Your task to perform on an android device: What is the capital of China? Image 0: 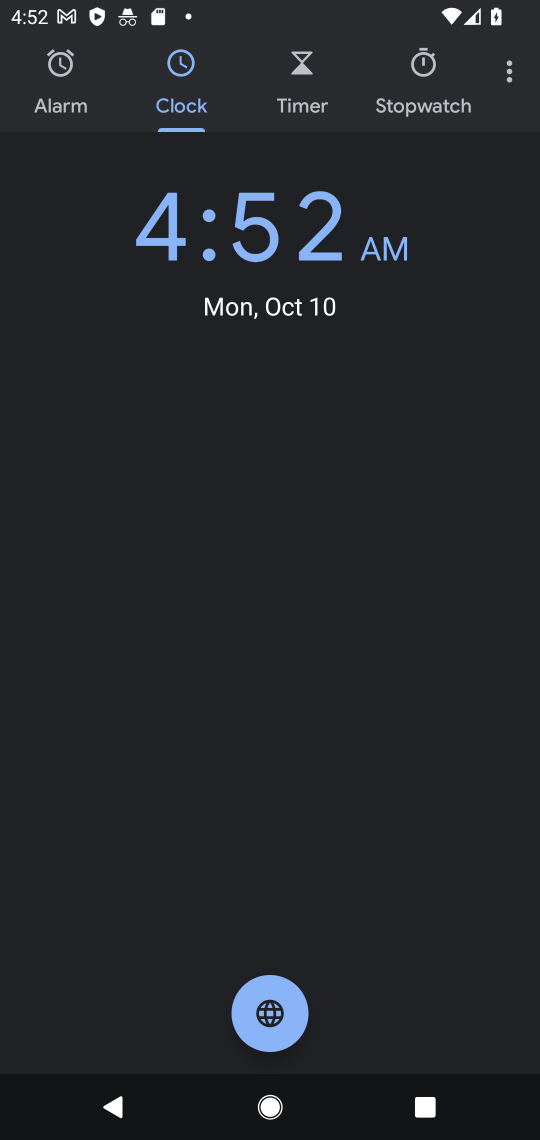
Step 0: press home button
Your task to perform on an android device: What is the capital of China? Image 1: 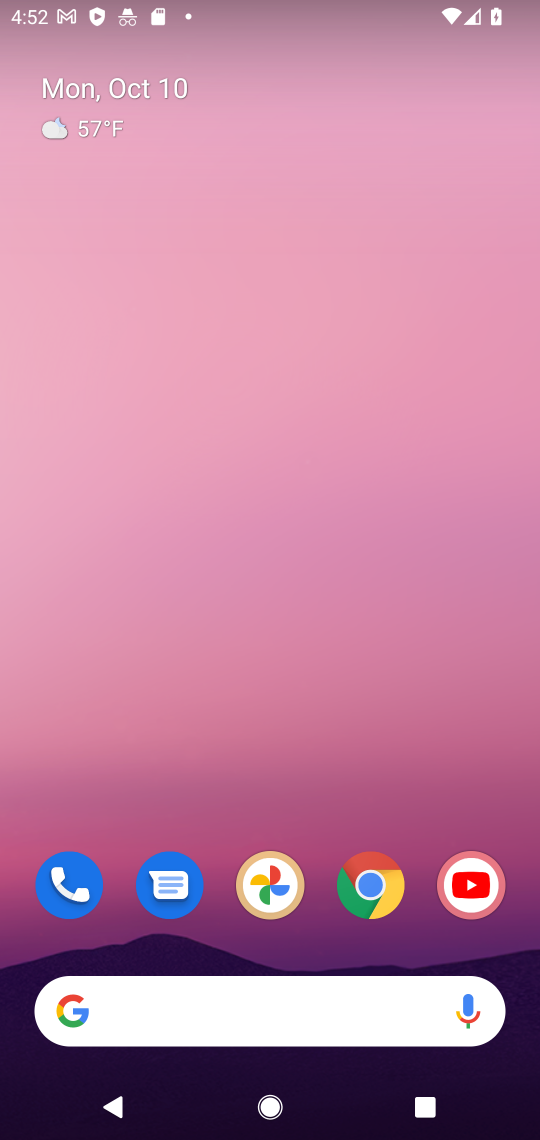
Step 1: click (206, 1014)
Your task to perform on an android device: What is the capital of China? Image 2: 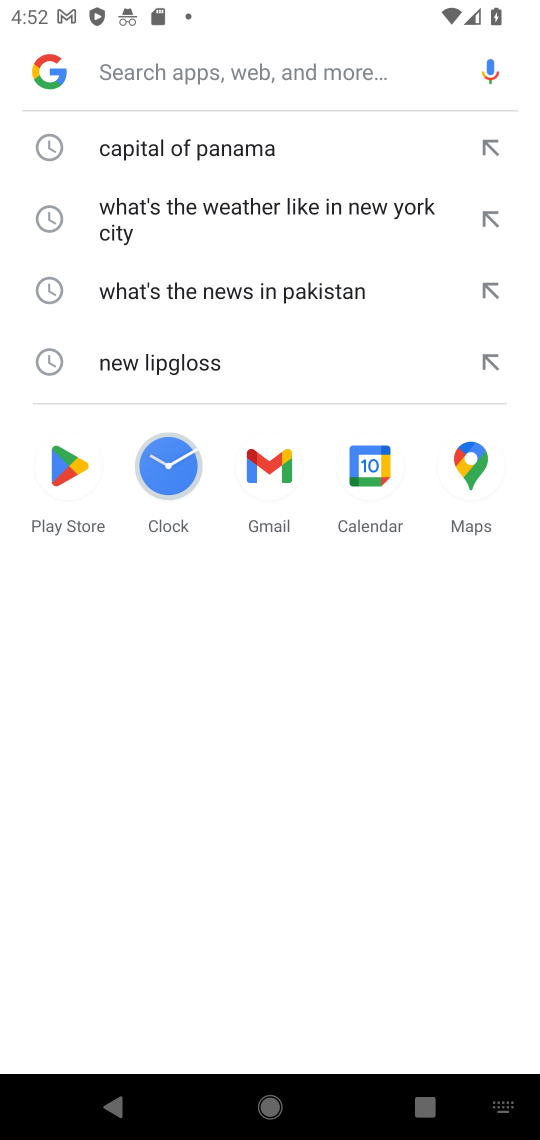
Step 2: type "What is the capital of China?"
Your task to perform on an android device: What is the capital of China? Image 3: 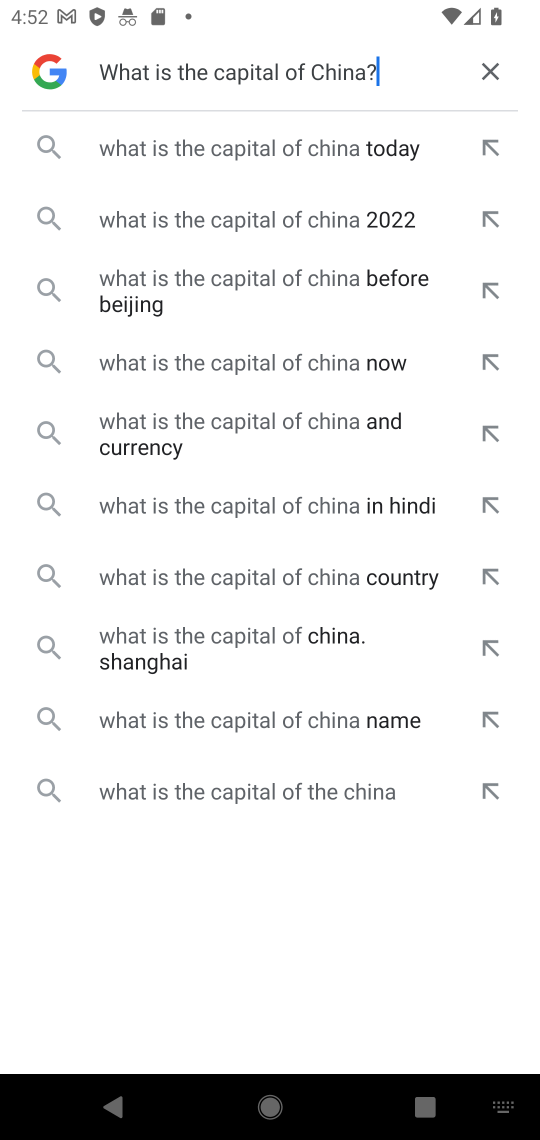
Step 3: click (232, 145)
Your task to perform on an android device: What is the capital of China? Image 4: 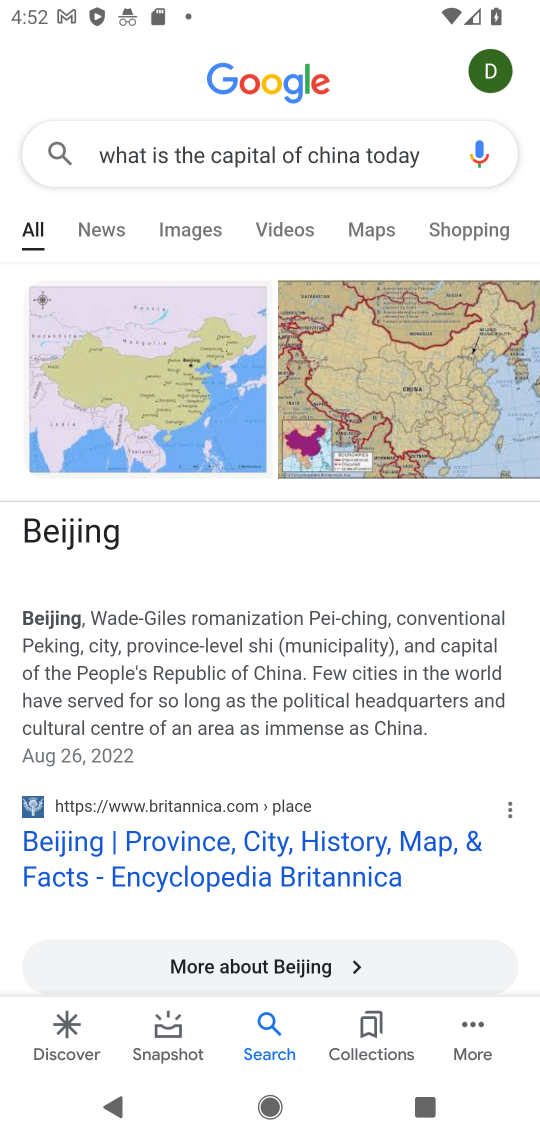
Step 4: task complete